Your task to perform on an android device: turn notification dots off Image 0: 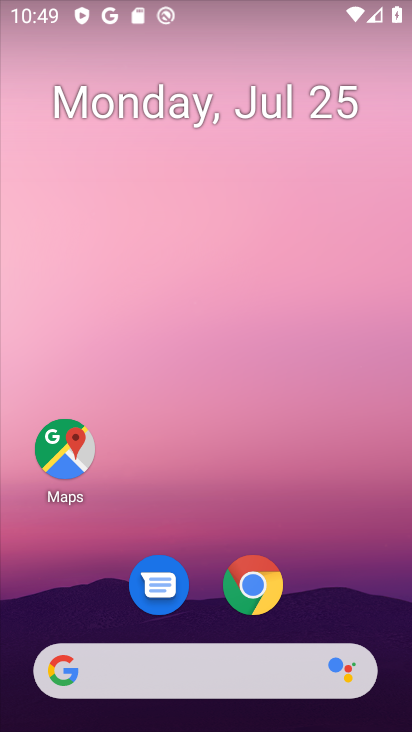
Step 0: drag from (348, 555) to (301, 49)
Your task to perform on an android device: turn notification dots off Image 1: 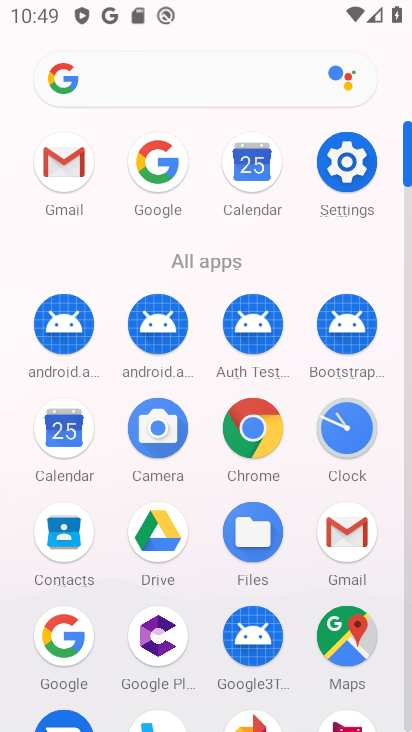
Step 1: click (339, 160)
Your task to perform on an android device: turn notification dots off Image 2: 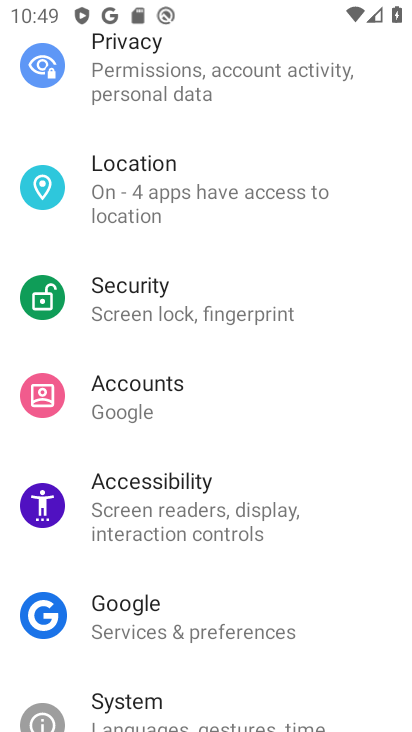
Step 2: drag from (228, 139) to (302, 619)
Your task to perform on an android device: turn notification dots off Image 3: 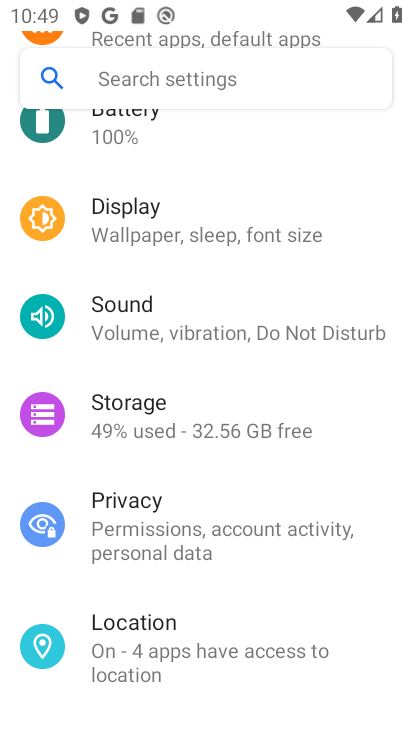
Step 3: drag from (208, 179) to (247, 543)
Your task to perform on an android device: turn notification dots off Image 4: 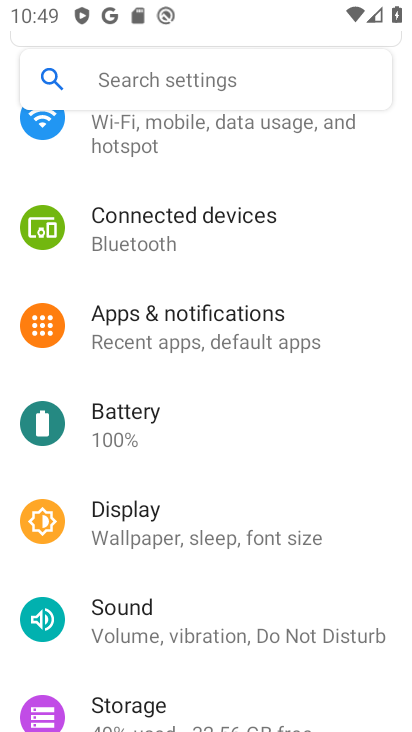
Step 4: click (176, 328)
Your task to perform on an android device: turn notification dots off Image 5: 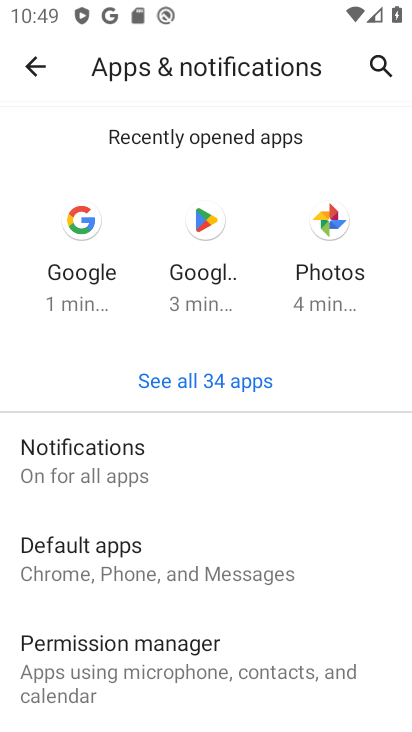
Step 5: click (133, 467)
Your task to perform on an android device: turn notification dots off Image 6: 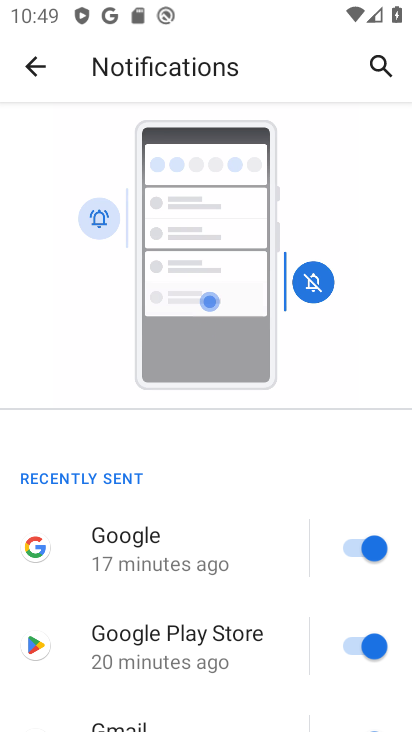
Step 6: drag from (232, 489) to (188, 22)
Your task to perform on an android device: turn notification dots off Image 7: 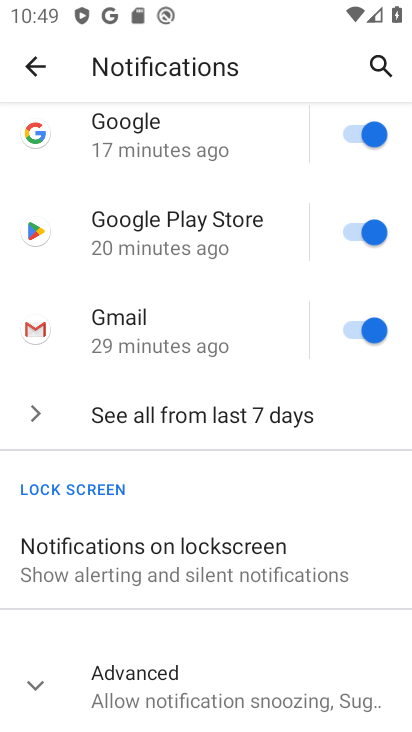
Step 7: drag from (214, 495) to (206, 168)
Your task to perform on an android device: turn notification dots off Image 8: 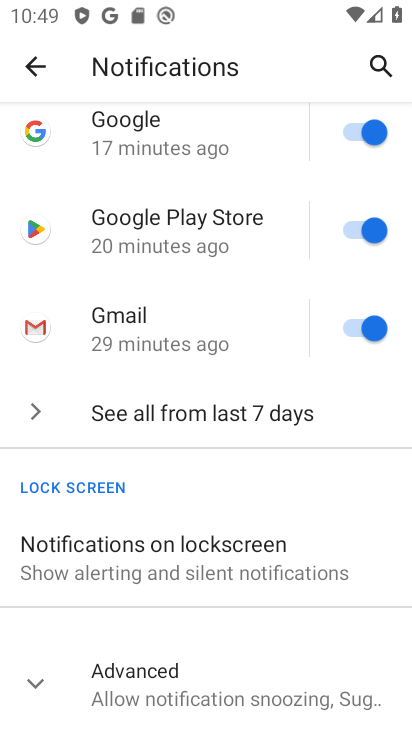
Step 8: click (31, 680)
Your task to perform on an android device: turn notification dots off Image 9: 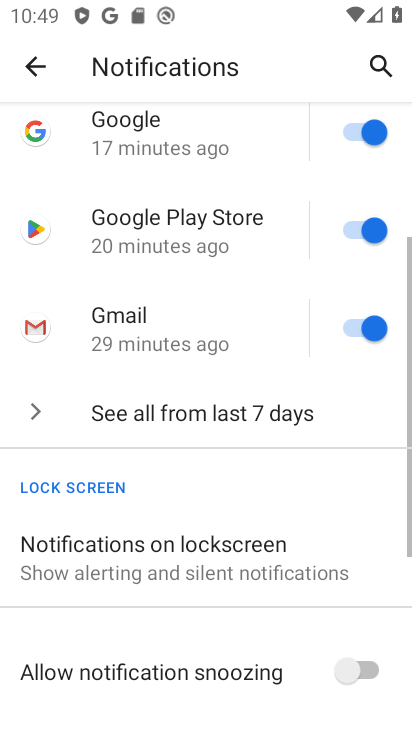
Step 9: drag from (164, 589) to (198, 186)
Your task to perform on an android device: turn notification dots off Image 10: 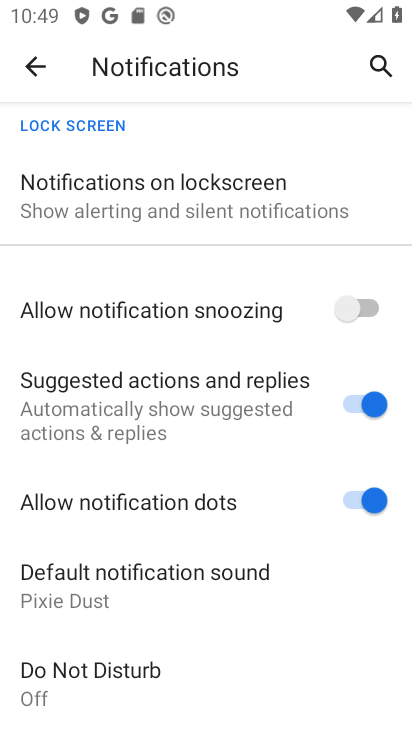
Step 10: click (364, 500)
Your task to perform on an android device: turn notification dots off Image 11: 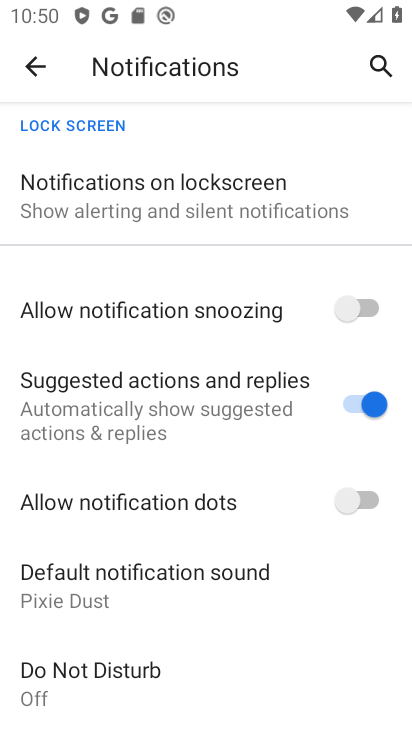
Step 11: task complete